Your task to perform on an android device: delete location history Image 0: 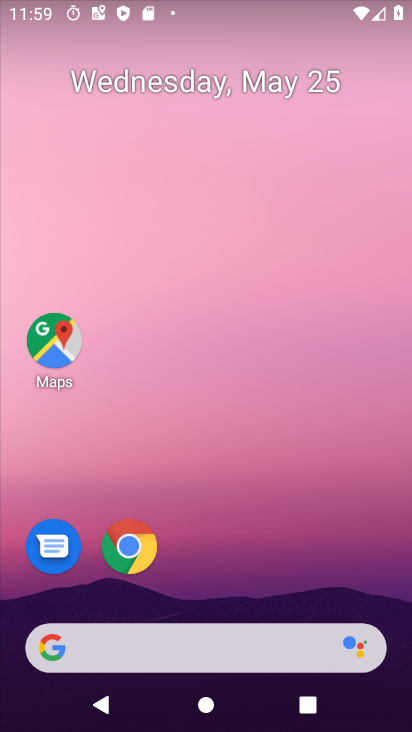
Step 0: drag from (261, 585) to (337, 35)
Your task to perform on an android device: delete location history Image 1: 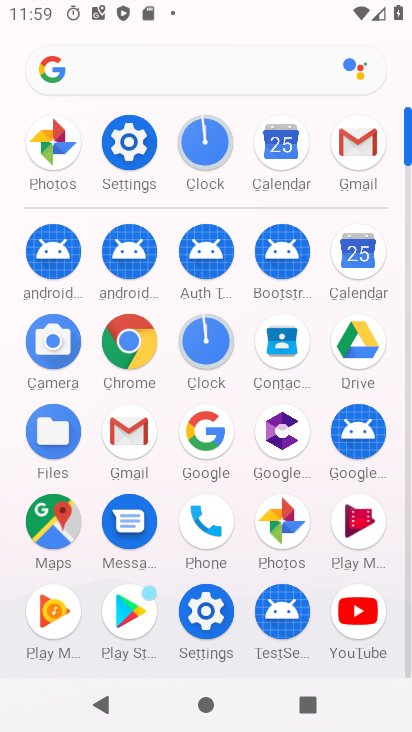
Step 1: click (65, 513)
Your task to perform on an android device: delete location history Image 2: 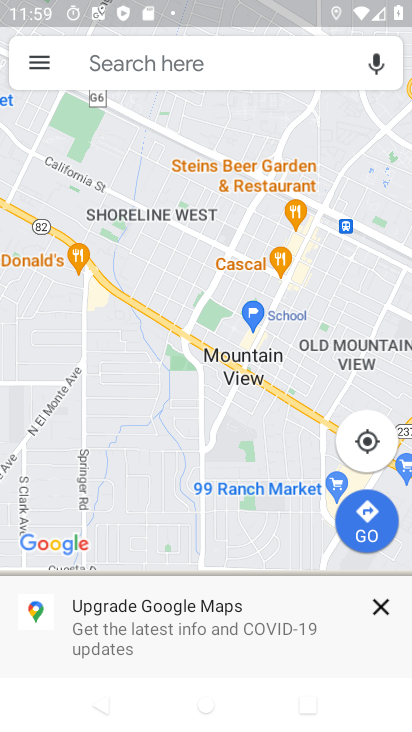
Step 2: click (37, 59)
Your task to perform on an android device: delete location history Image 3: 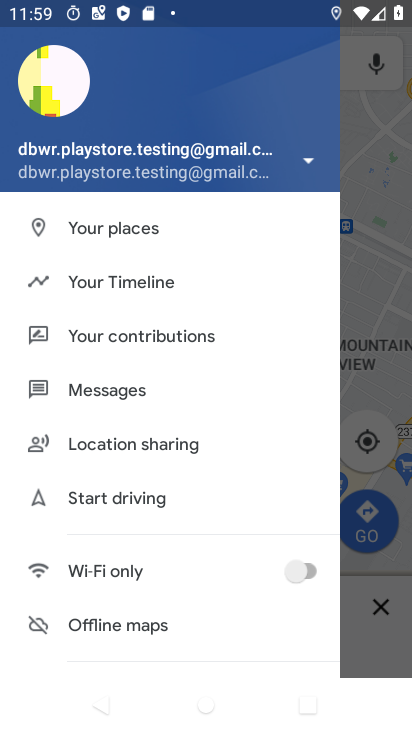
Step 3: drag from (114, 506) to (186, 213)
Your task to perform on an android device: delete location history Image 4: 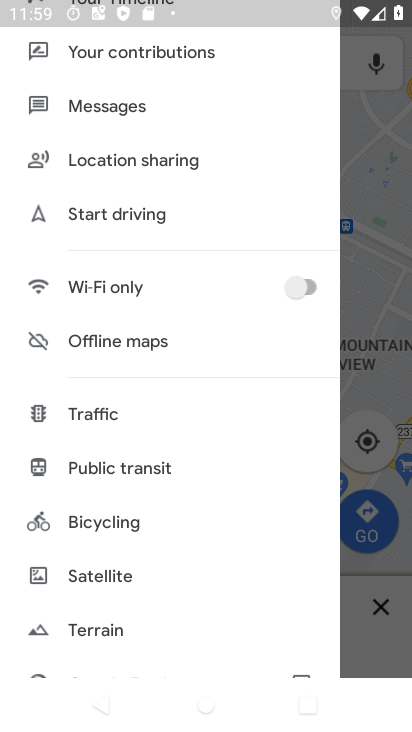
Step 4: drag from (122, 89) to (164, 279)
Your task to perform on an android device: delete location history Image 5: 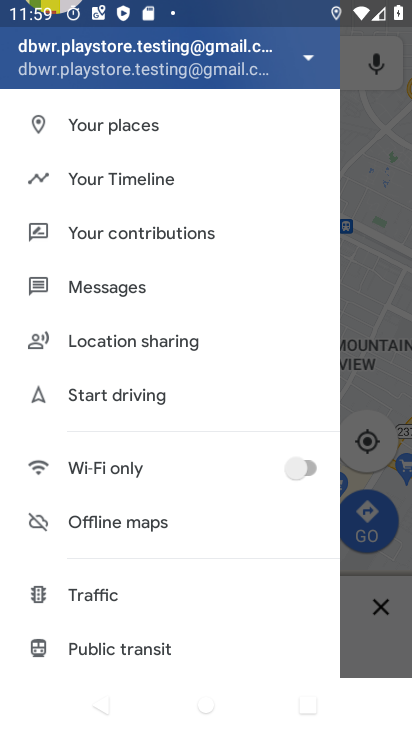
Step 5: click (115, 165)
Your task to perform on an android device: delete location history Image 6: 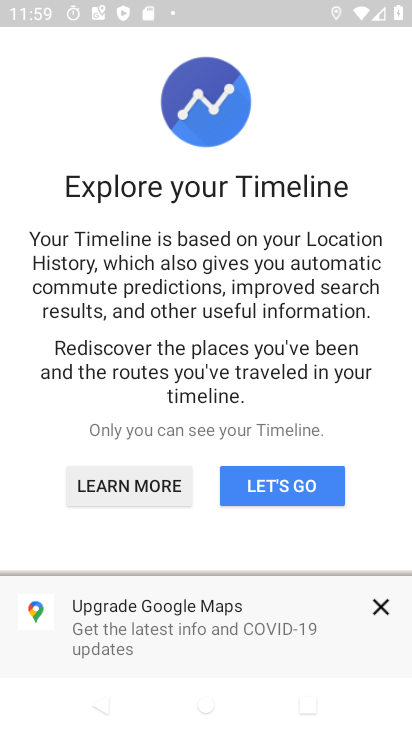
Step 6: click (266, 490)
Your task to perform on an android device: delete location history Image 7: 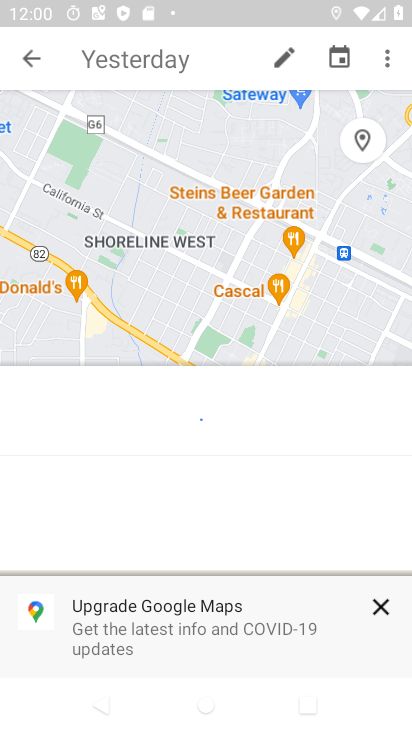
Step 7: click (387, 70)
Your task to perform on an android device: delete location history Image 8: 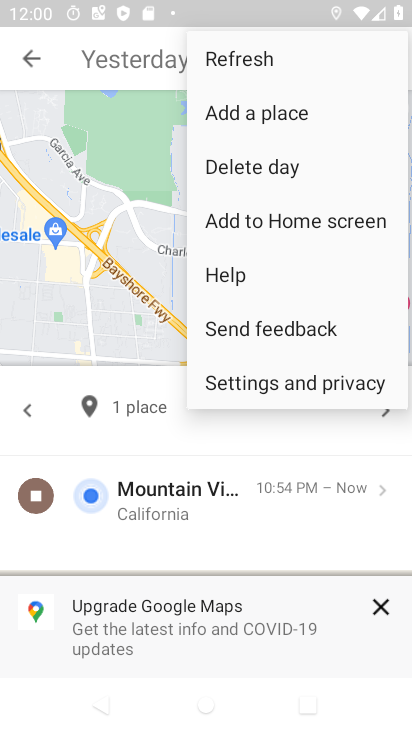
Step 8: click (242, 374)
Your task to perform on an android device: delete location history Image 9: 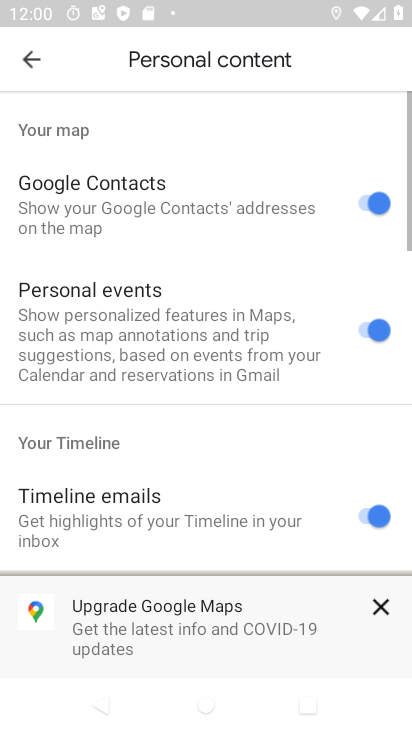
Step 9: drag from (170, 485) to (123, 163)
Your task to perform on an android device: delete location history Image 10: 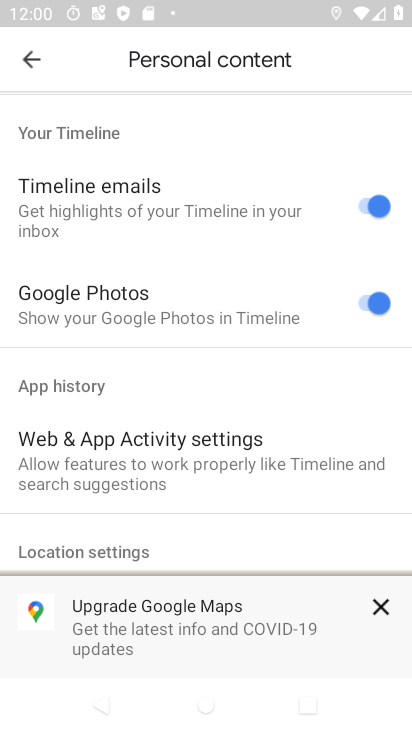
Step 10: drag from (203, 475) to (270, 134)
Your task to perform on an android device: delete location history Image 11: 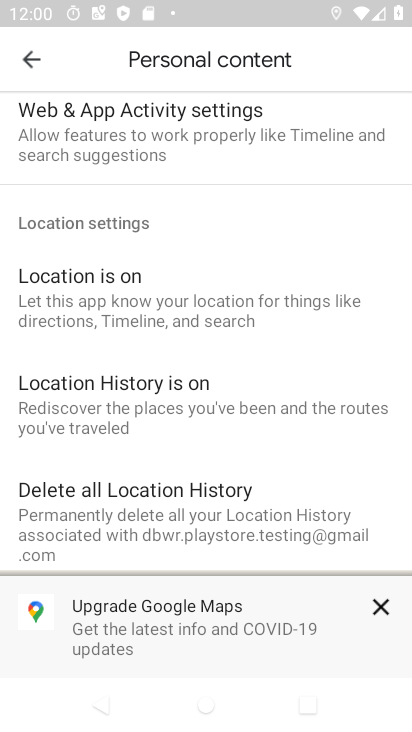
Step 11: click (243, 528)
Your task to perform on an android device: delete location history Image 12: 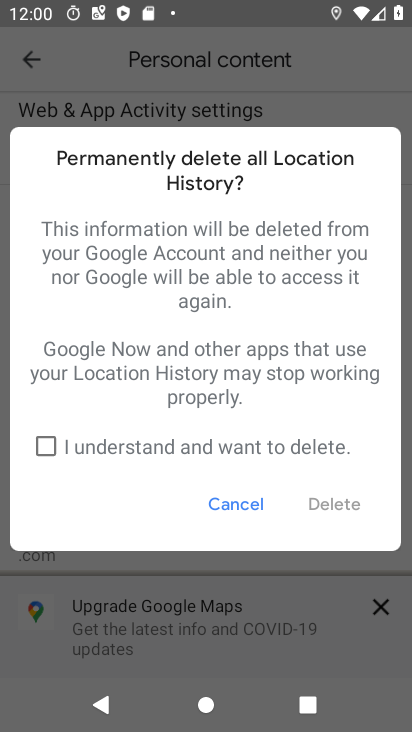
Step 12: click (130, 449)
Your task to perform on an android device: delete location history Image 13: 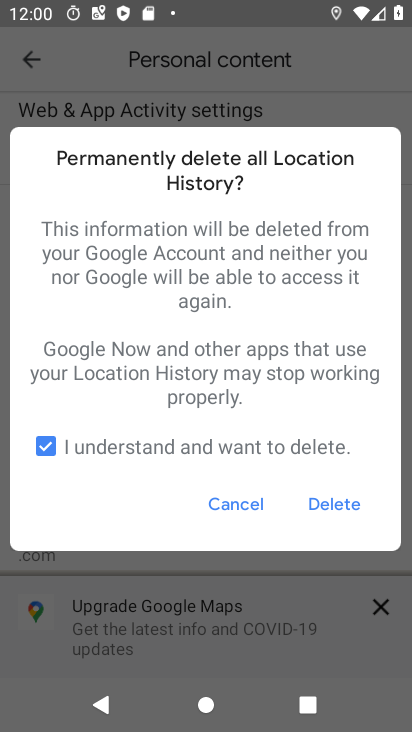
Step 13: click (341, 500)
Your task to perform on an android device: delete location history Image 14: 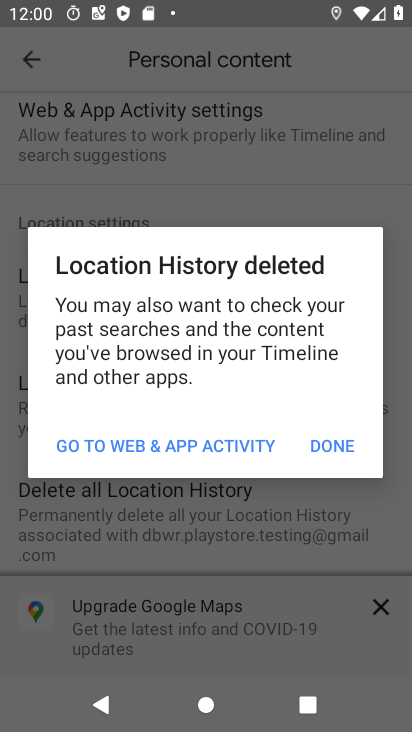
Step 14: task complete